Your task to perform on an android device: turn vacation reply on in the gmail app Image 0: 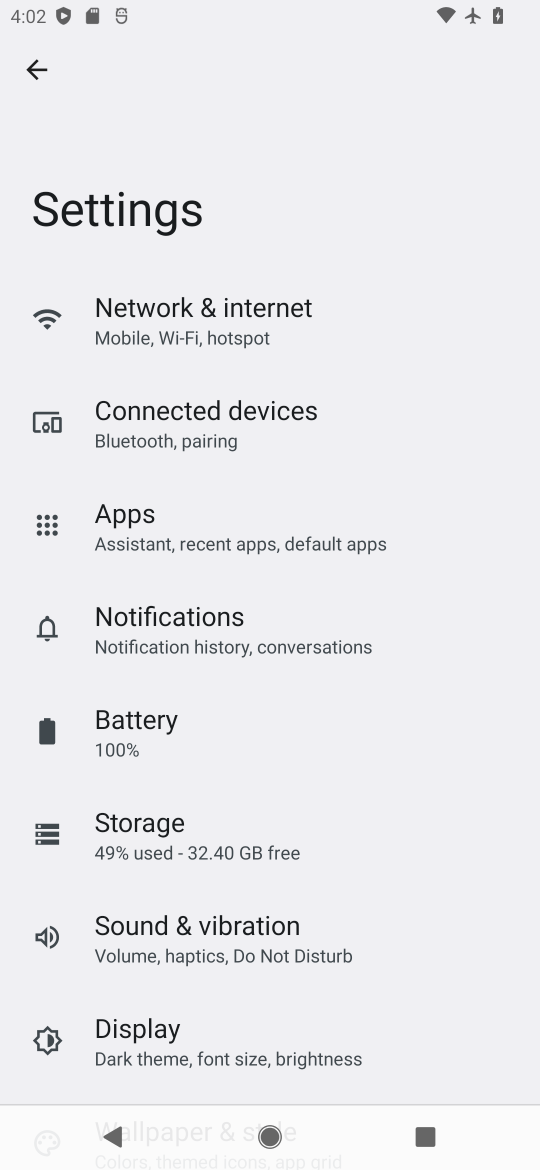
Step 0: press home button
Your task to perform on an android device: turn vacation reply on in the gmail app Image 1: 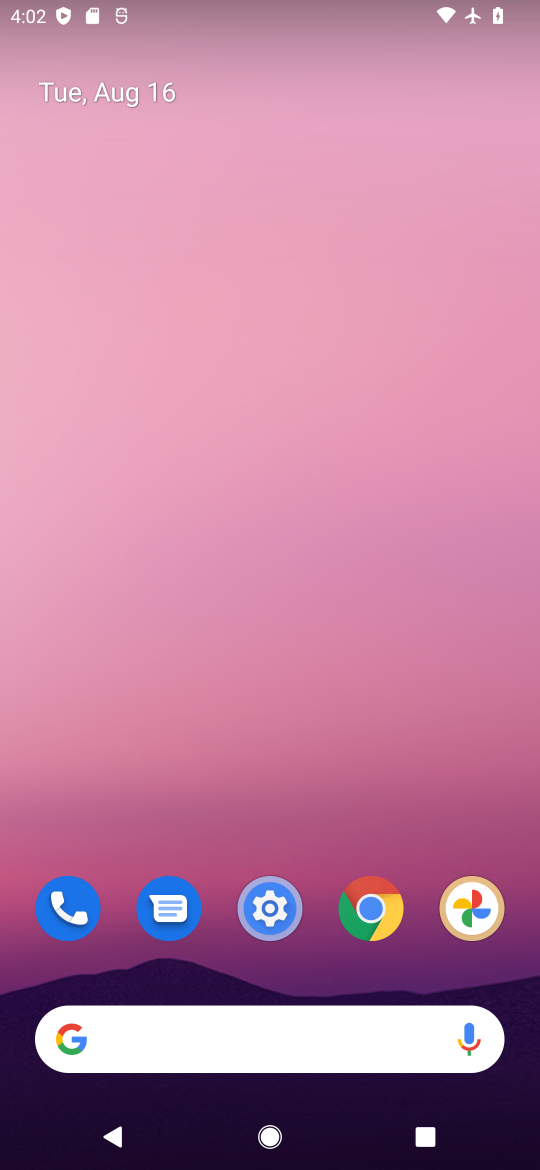
Step 1: drag from (326, 961) to (352, 20)
Your task to perform on an android device: turn vacation reply on in the gmail app Image 2: 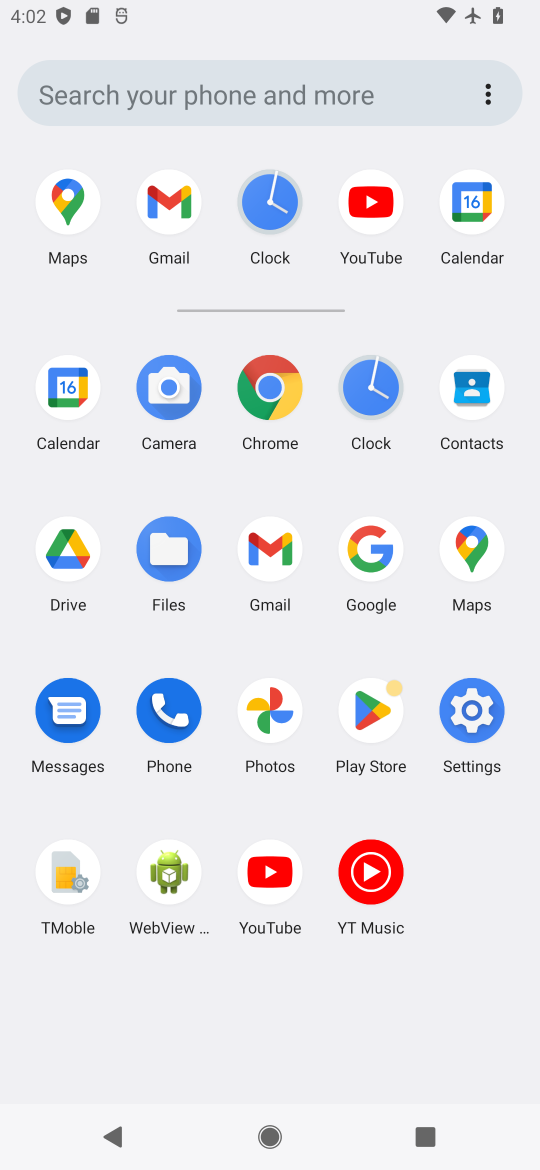
Step 2: click (265, 543)
Your task to perform on an android device: turn vacation reply on in the gmail app Image 3: 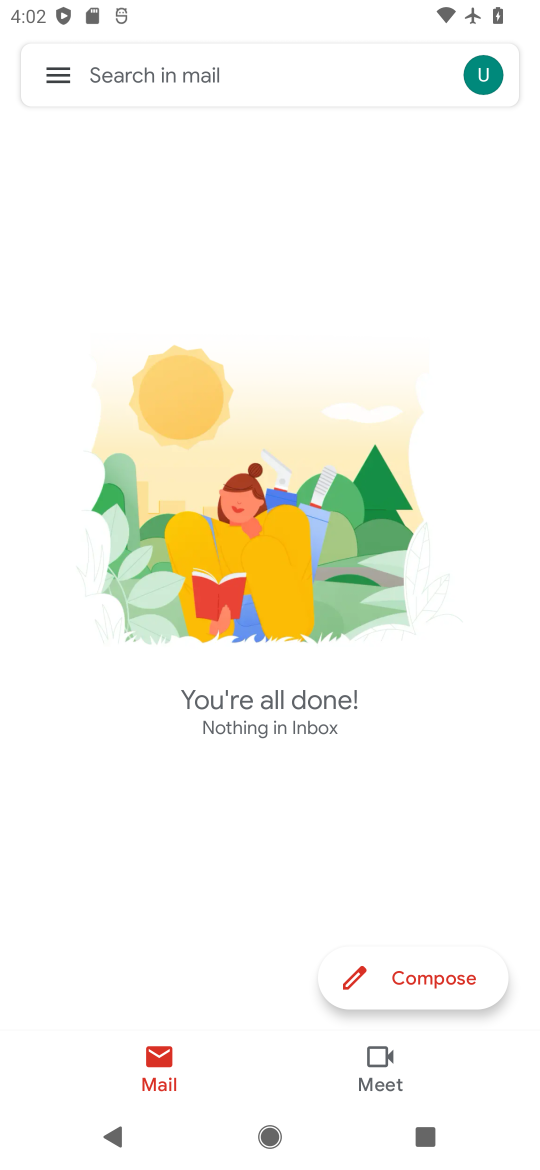
Step 3: click (57, 68)
Your task to perform on an android device: turn vacation reply on in the gmail app Image 4: 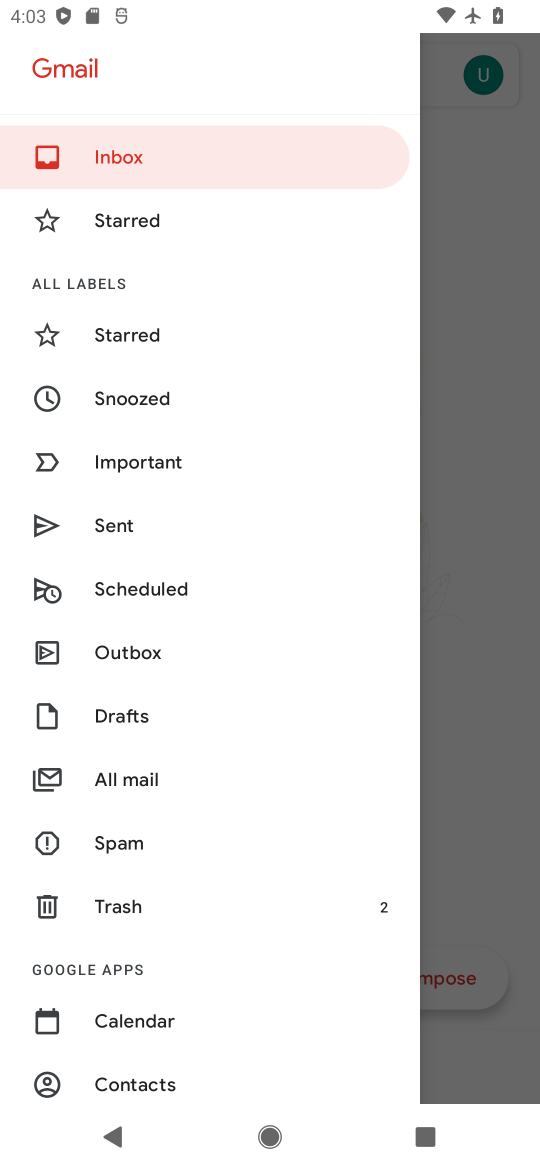
Step 4: drag from (179, 1040) to (191, 118)
Your task to perform on an android device: turn vacation reply on in the gmail app Image 5: 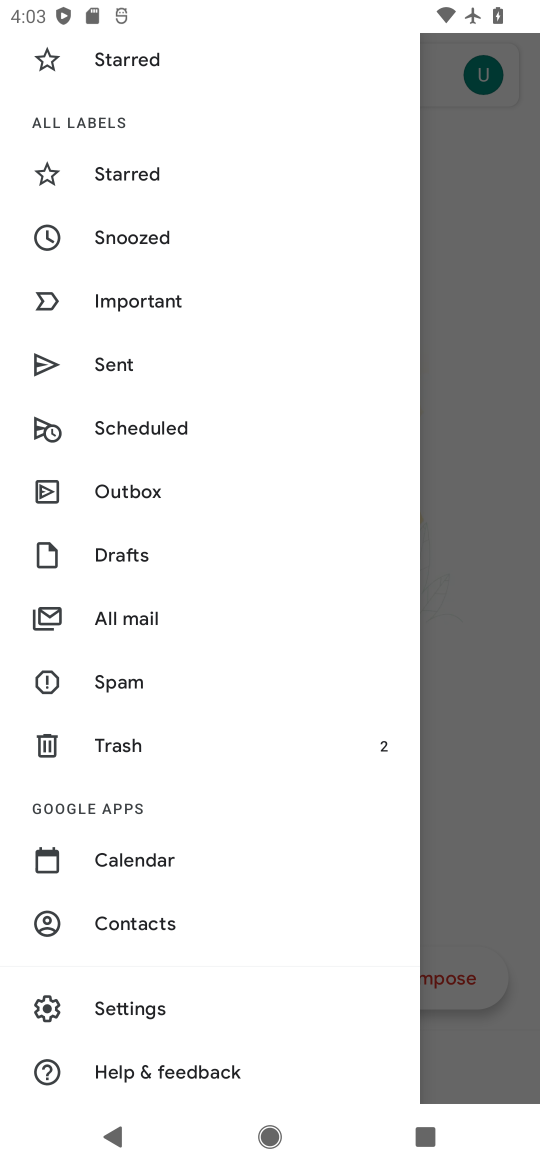
Step 5: click (183, 996)
Your task to perform on an android device: turn vacation reply on in the gmail app Image 6: 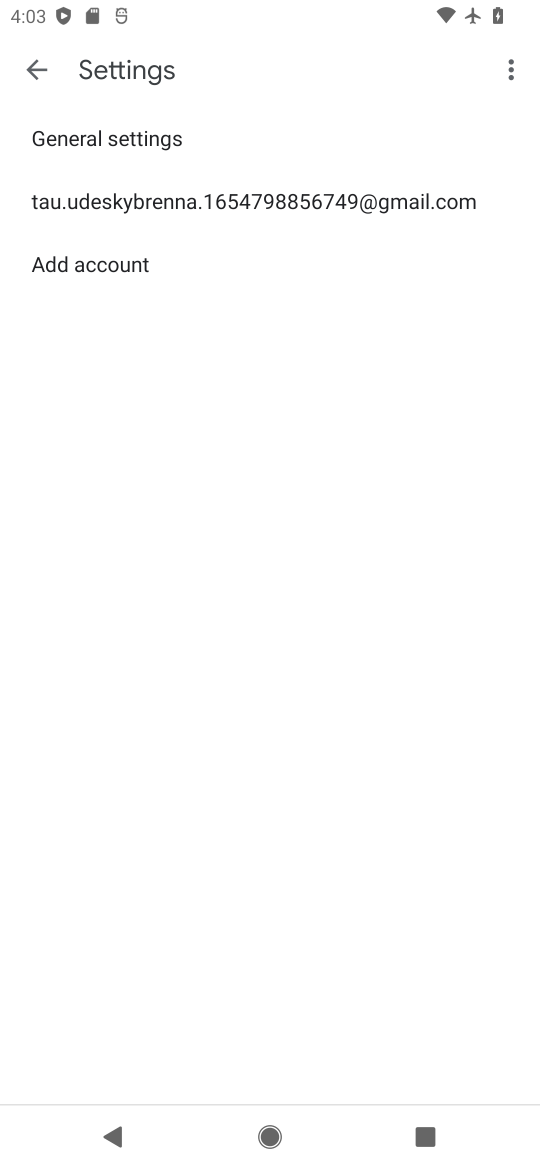
Step 6: click (214, 197)
Your task to perform on an android device: turn vacation reply on in the gmail app Image 7: 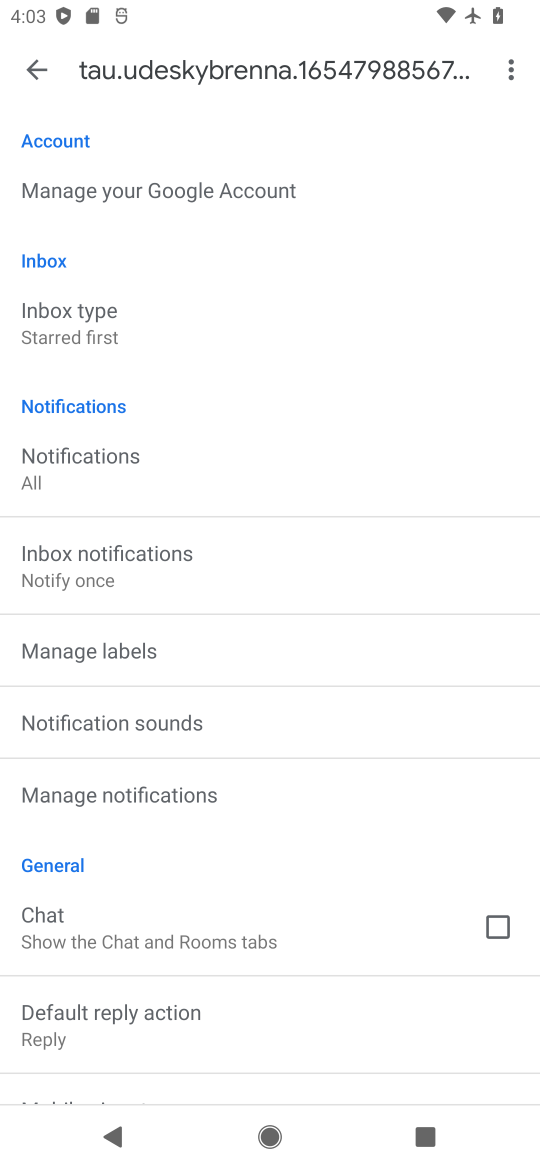
Step 7: drag from (260, 987) to (266, 170)
Your task to perform on an android device: turn vacation reply on in the gmail app Image 8: 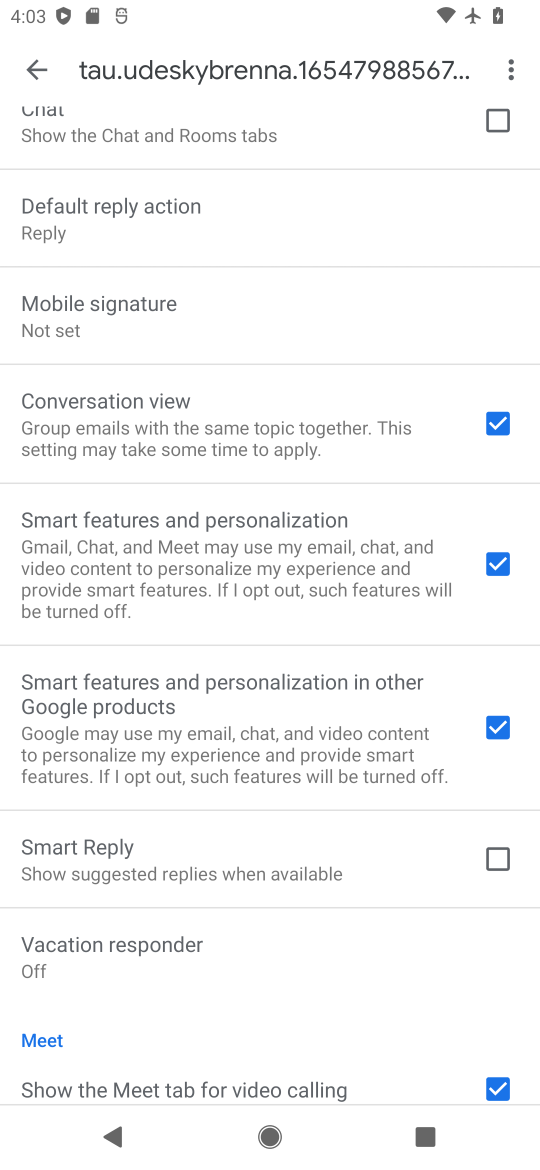
Step 8: click (201, 953)
Your task to perform on an android device: turn vacation reply on in the gmail app Image 9: 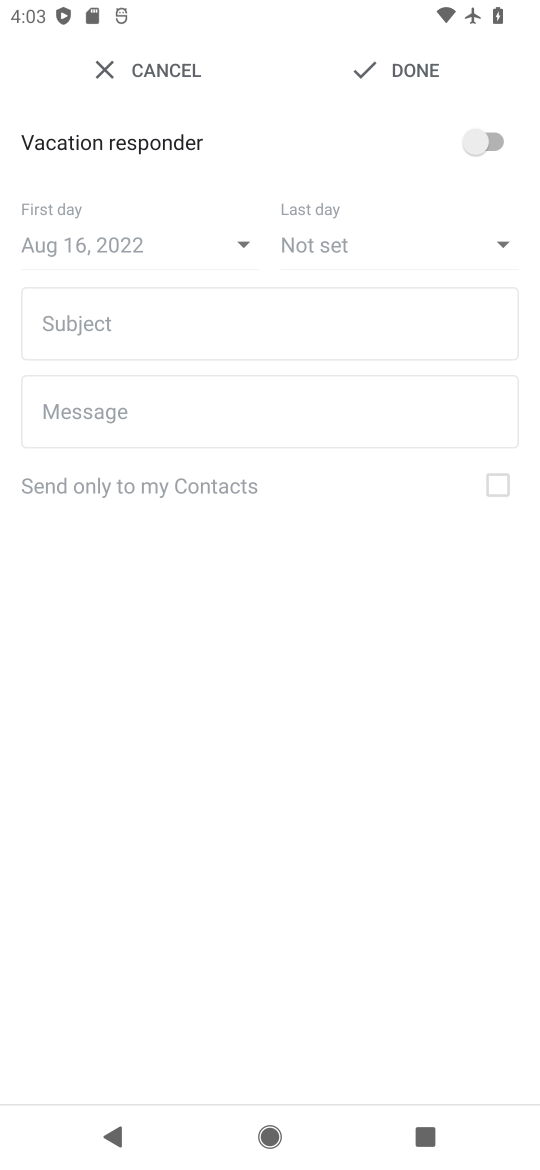
Step 9: task complete